Your task to perform on an android device: check storage Image 0: 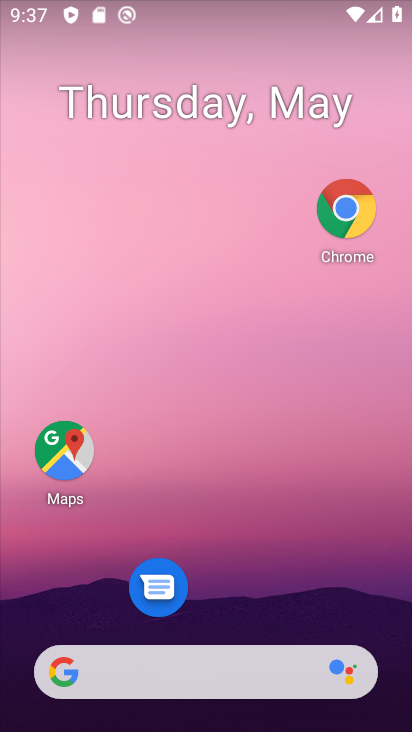
Step 0: drag from (233, 604) to (232, 122)
Your task to perform on an android device: check storage Image 1: 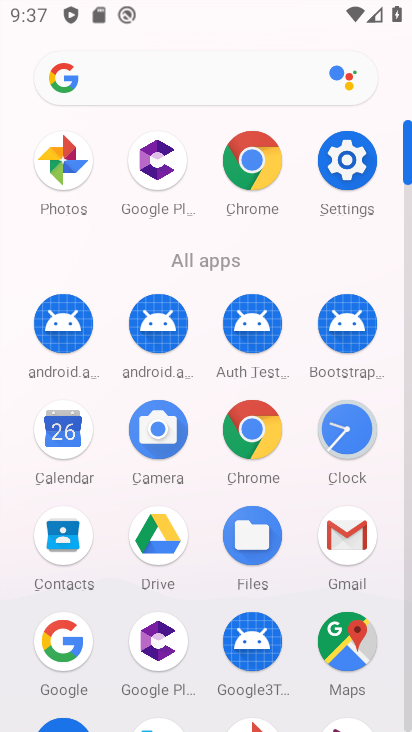
Step 1: click (340, 205)
Your task to perform on an android device: check storage Image 2: 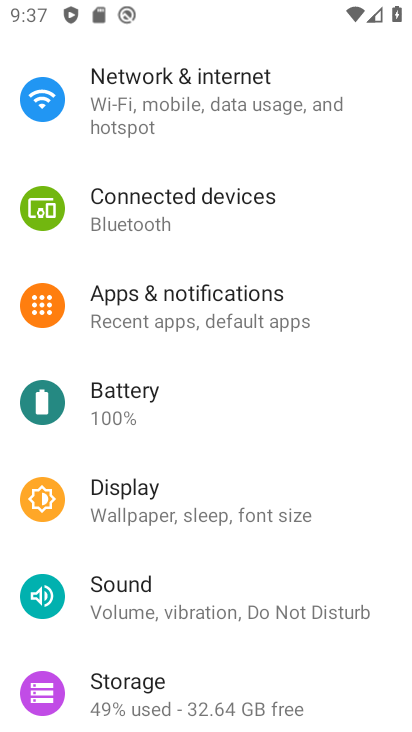
Step 2: click (124, 697)
Your task to perform on an android device: check storage Image 3: 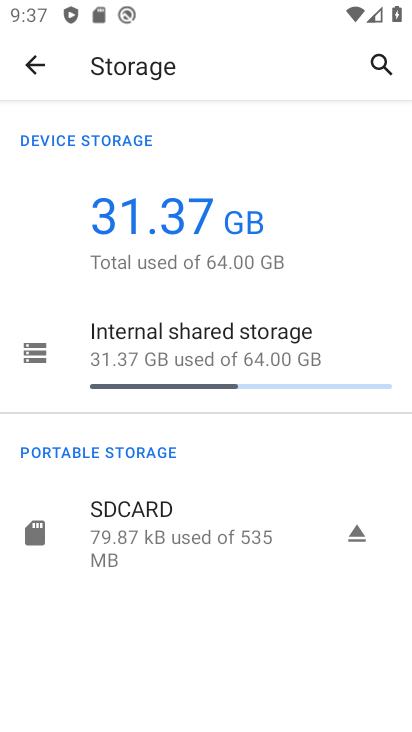
Step 3: task complete